Your task to perform on an android device: toggle sleep mode Image 0: 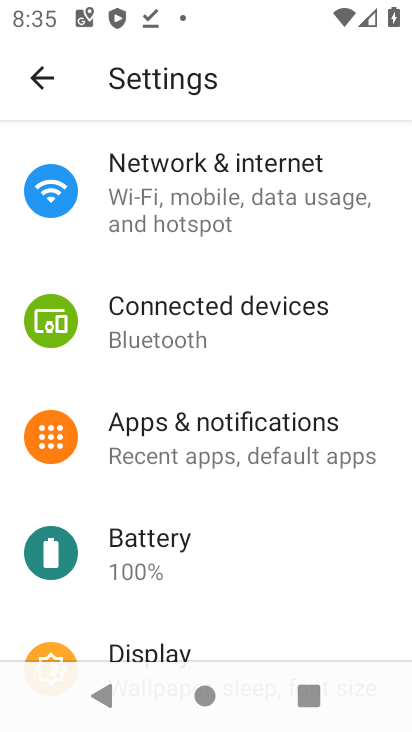
Step 0: press back button
Your task to perform on an android device: toggle sleep mode Image 1: 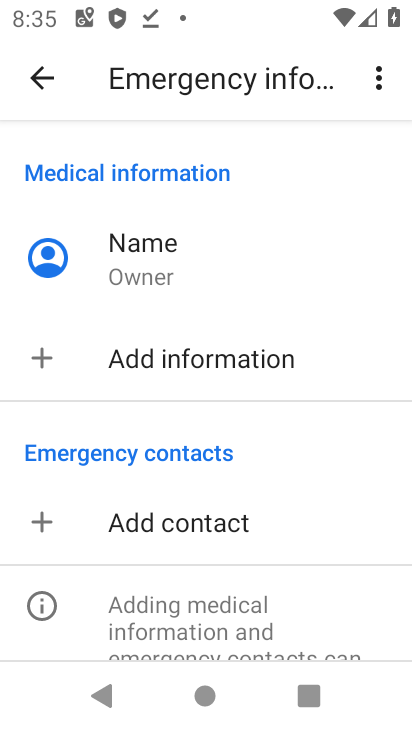
Step 1: click (39, 70)
Your task to perform on an android device: toggle sleep mode Image 2: 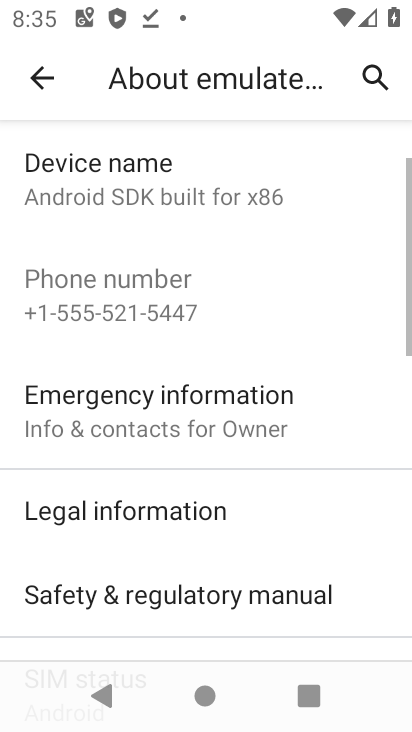
Step 2: click (45, 69)
Your task to perform on an android device: toggle sleep mode Image 3: 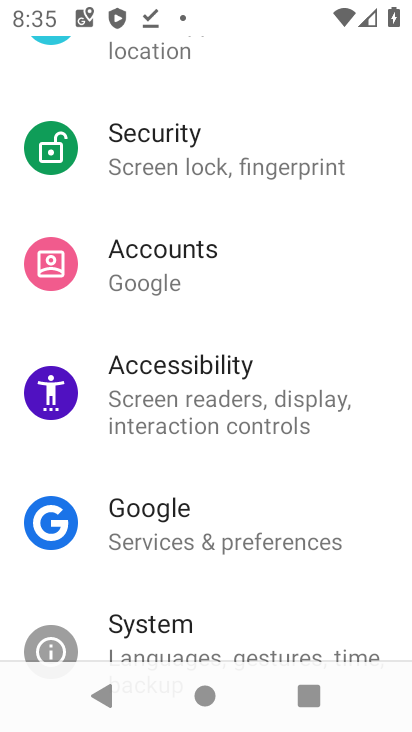
Step 3: drag from (224, 536) to (166, 180)
Your task to perform on an android device: toggle sleep mode Image 4: 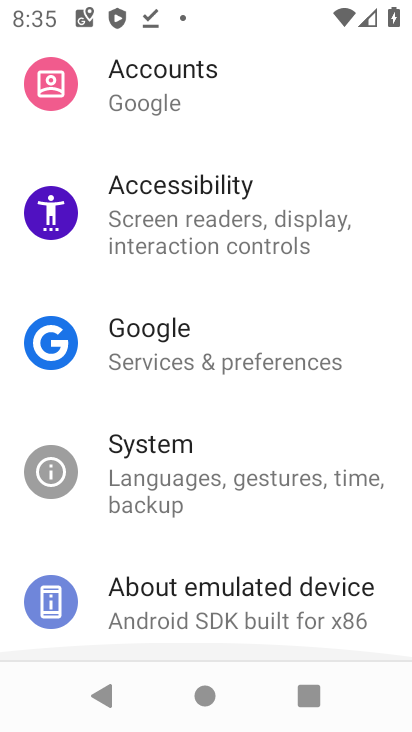
Step 4: drag from (219, 438) to (159, 163)
Your task to perform on an android device: toggle sleep mode Image 5: 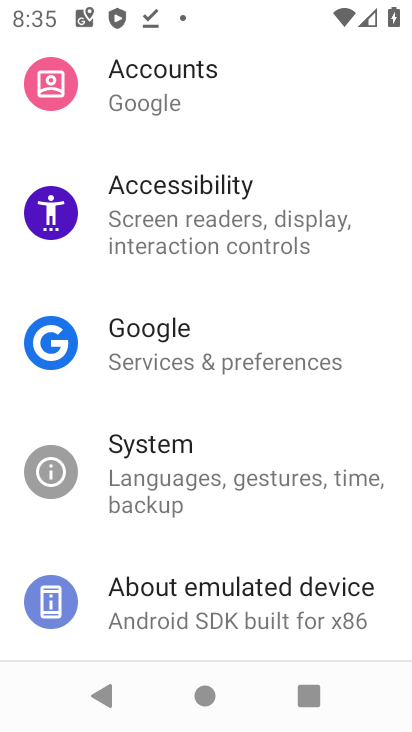
Step 5: drag from (163, 218) to (290, 494)
Your task to perform on an android device: toggle sleep mode Image 6: 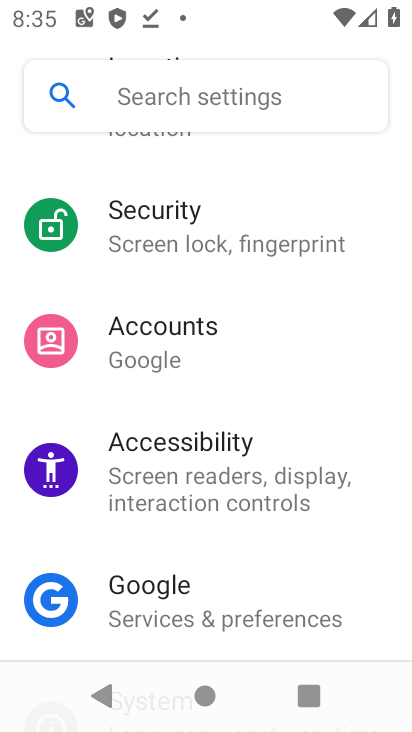
Step 6: drag from (155, 194) to (254, 560)
Your task to perform on an android device: toggle sleep mode Image 7: 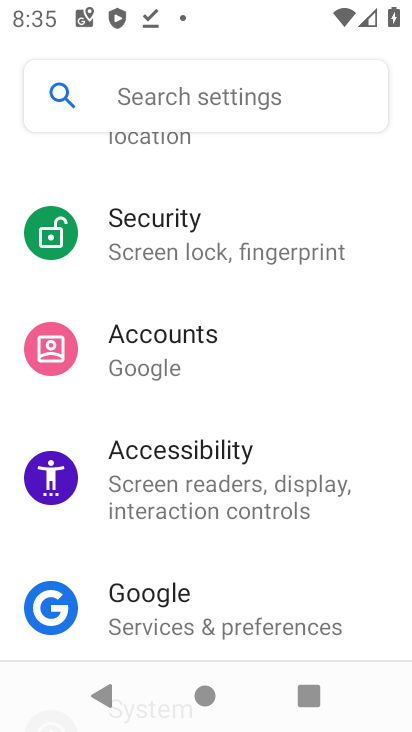
Step 7: drag from (213, 200) to (227, 481)
Your task to perform on an android device: toggle sleep mode Image 8: 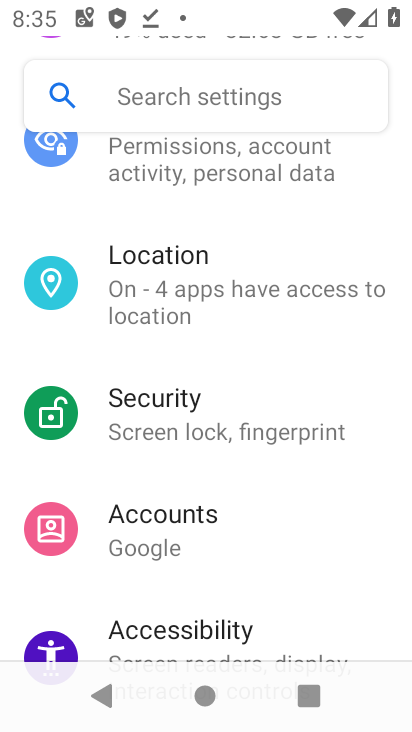
Step 8: drag from (154, 231) to (161, 425)
Your task to perform on an android device: toggle sleep mode Image 9: 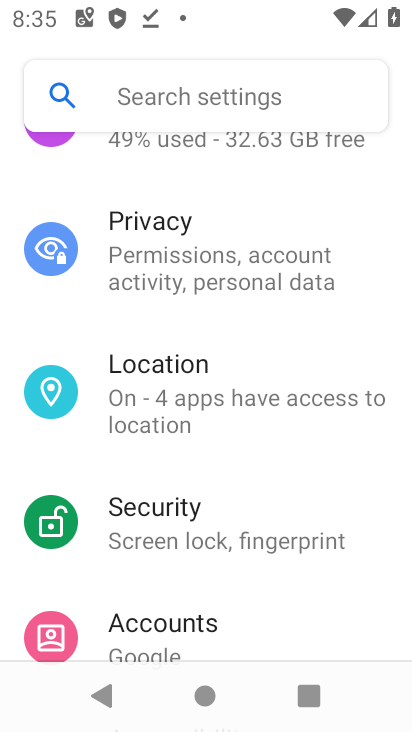
Step 9: drag from (181, 285) to (217, 623)
Your task to perform on an android device: toggle sleep mode Image 10: 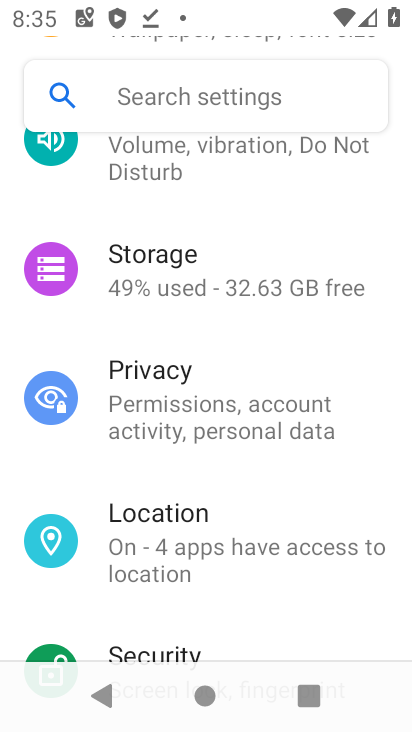
Step 10: drag from (223, 189) to (217, 408)
Your task to perform on an android device: toggle sleep mode Image 11: 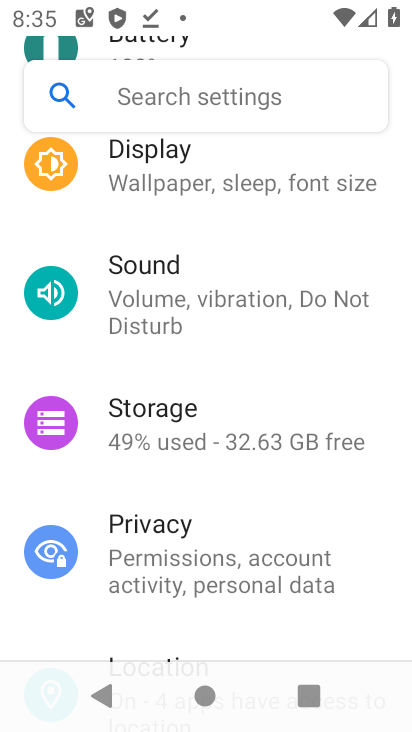
Step 11: drag from (191, 320) to (195, 488)
Your task to perform on an android device: toggle sleep mode Image 12: 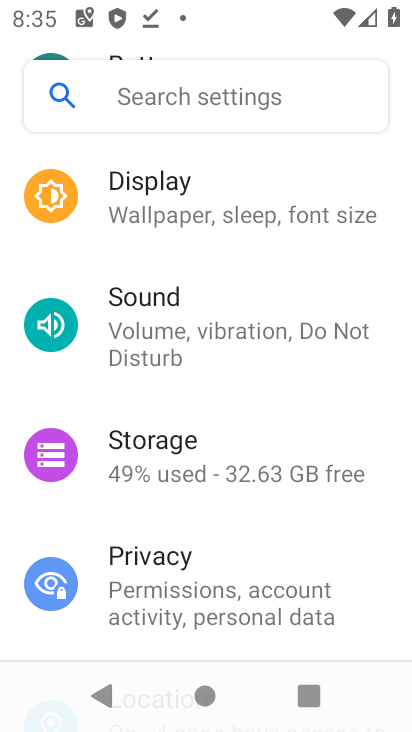
Step 12: drag from (216, 305) to (203, 513)
Your task to perform on an android device: toggle sleep mode Image 13: 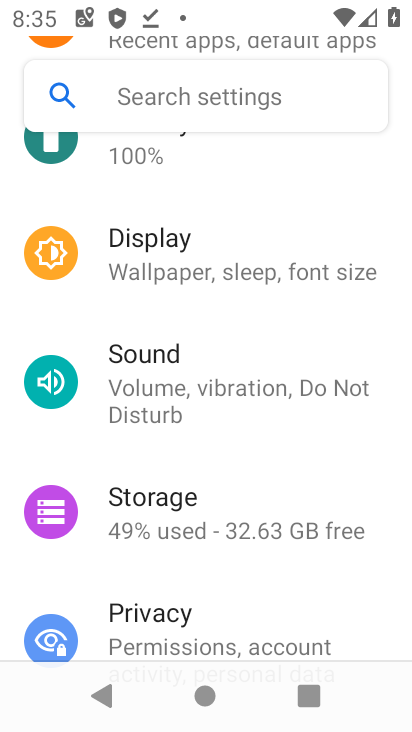
Step 13: drag from (198, 335) to (175, 480)
Your task to perform on an android device: toggle sleep mode Image 14: 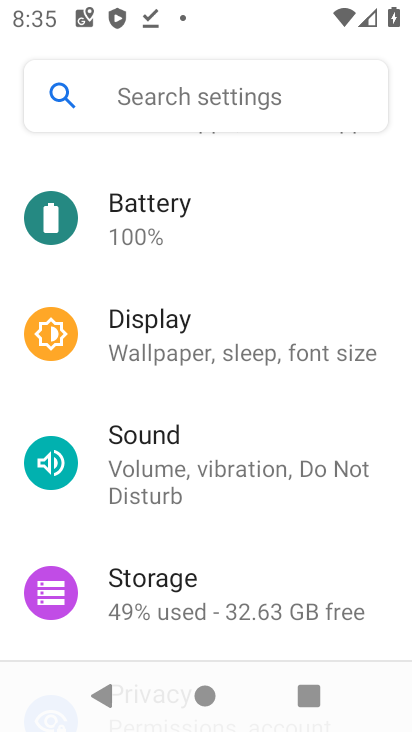
Step 14: click (156, 350)
Your task to perform on an android device: toggle sleep mode Image 15: 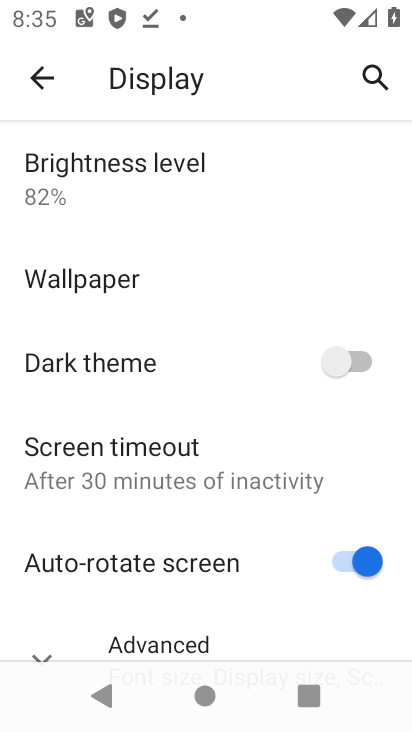
Step 15: click (138, 472)
Your task to perform on an android device: toggle sleep mode Image 16: 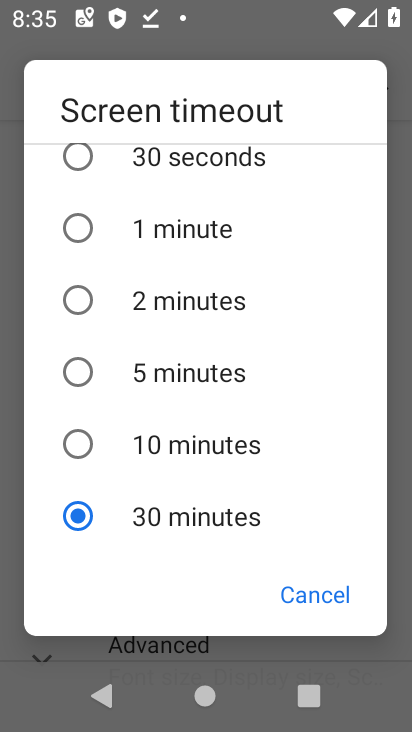
Step 16: click (77, 442)
Your task to perform on an android device: toggle sleep mode Image 17: 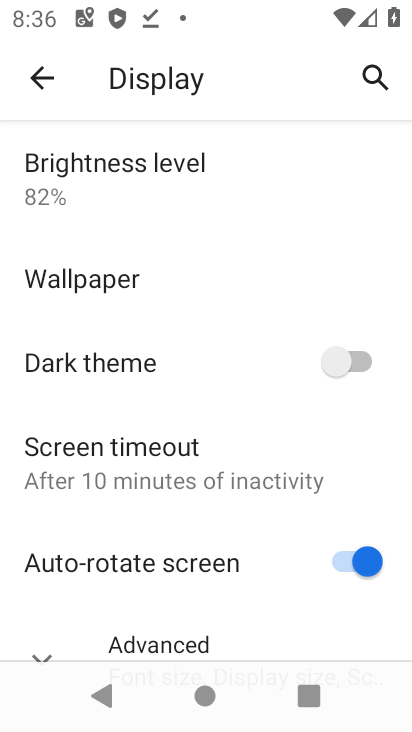
Step 17: task complete